Your task to perform on an android device: Open calendar and show me the third week of next month Image 0: 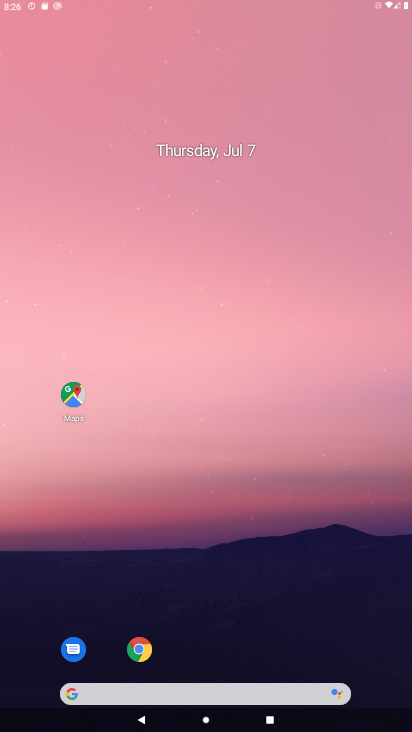
Step 0: press home button
Your task to perform on an android device: Open calendar and show me the third week of next month Image 1: 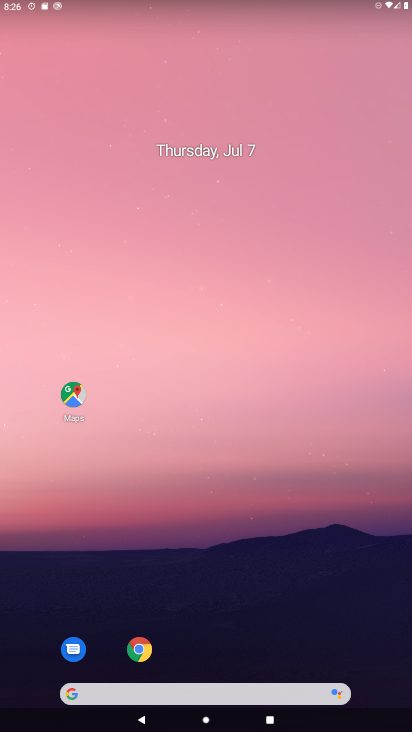
Step 1: drag from (213, 653) to (187, 90)
Your task to perform on an android device: Open calendar and show me the third week of next month Image 2: 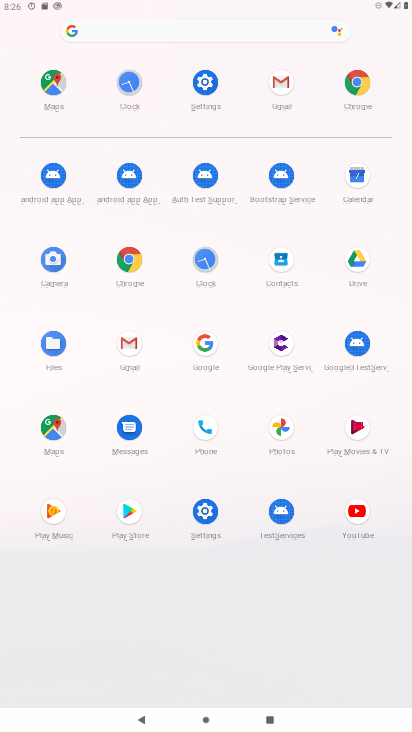
Step 2: click (353, 173)
Your task to perform on an android device: Open calendar and show me the third week of next month Image 3: 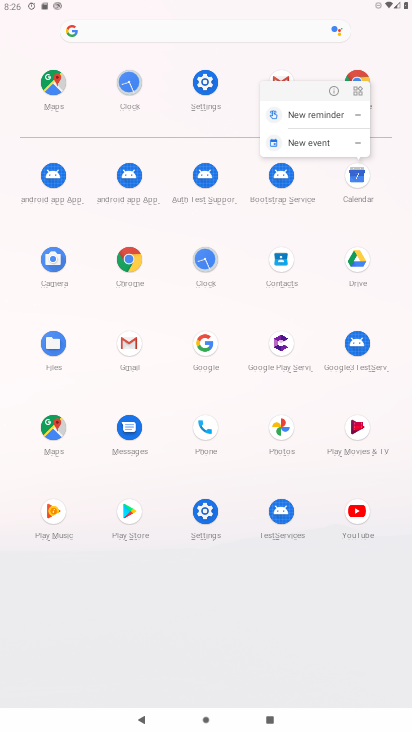
Step 3: click (357, 182)
Your task to perform on an android device: Open calendar and show me the third week of next month Image 4: 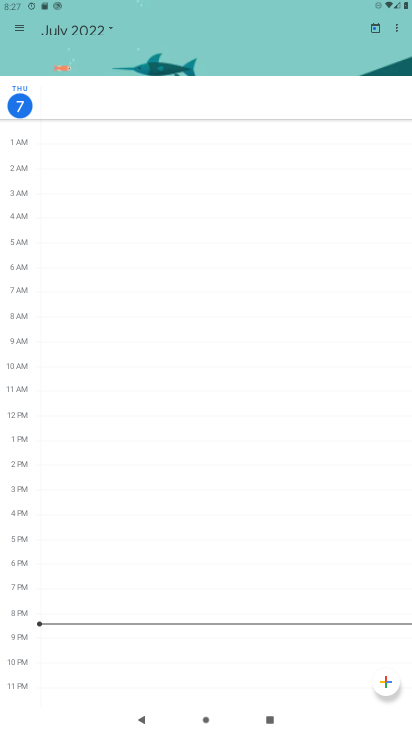
Step 4: click (108, 26)
Your task to perform on an android device: Open calendar and show me the third week of next month Image 5: 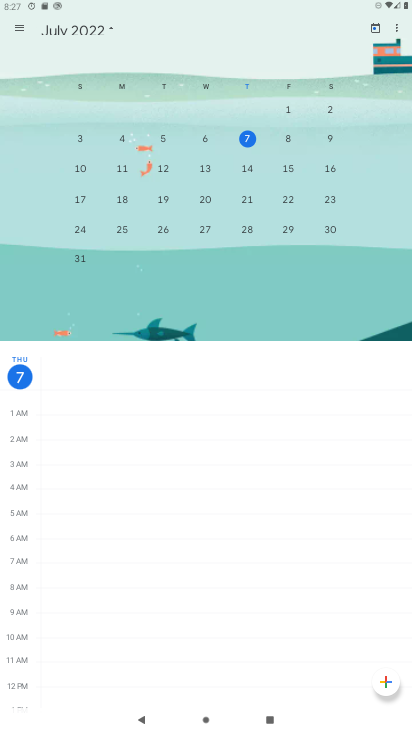
Step 5: drag from (310, 184) to (48, 196)
Your task to perform on an android device: Open calendar and show me the third week of next month Image 6: 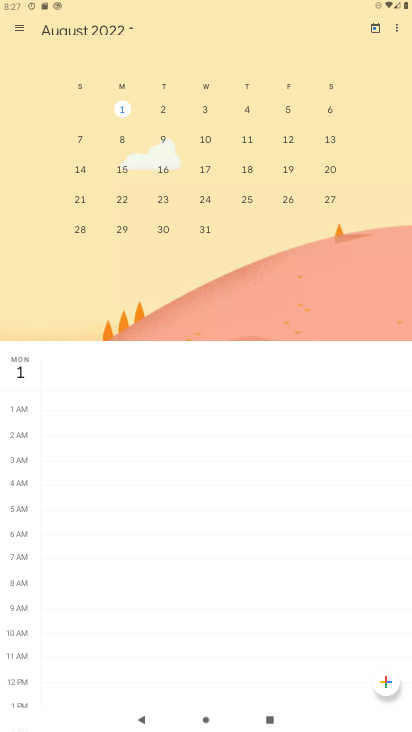
Step 6: click (85, 169)
Your task to perform on an android device: Open calendar and show me the third week of next month Image 7: 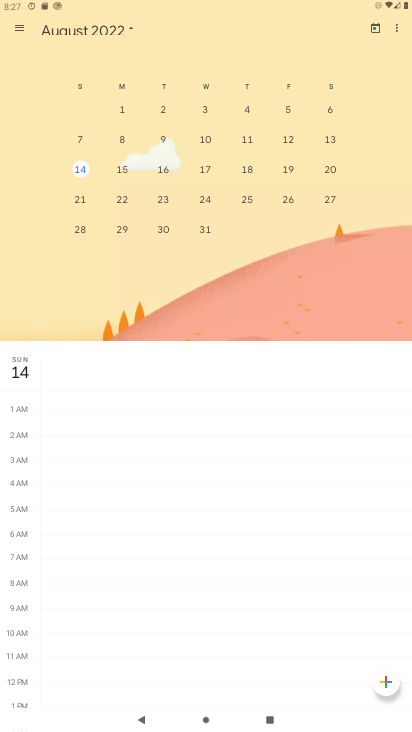
Step 7: click (132, 29)
Your task to perform on an android device: Open calendar and show me the third week of next month Image 8: 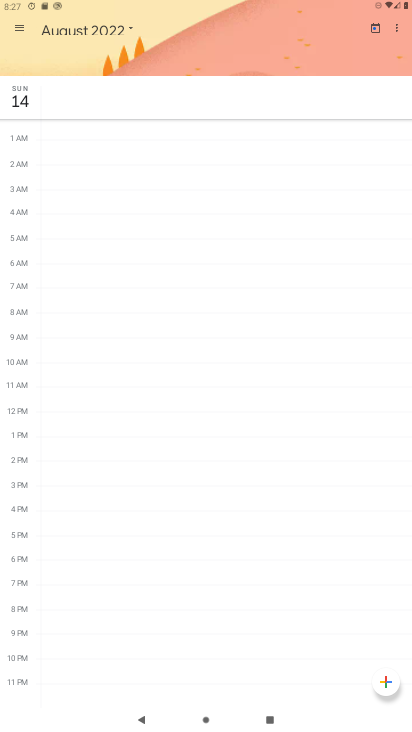
Step 8: click (30, 106)
Your task to perform on an android device: Open calendar and show me the third week of next month Image 9: 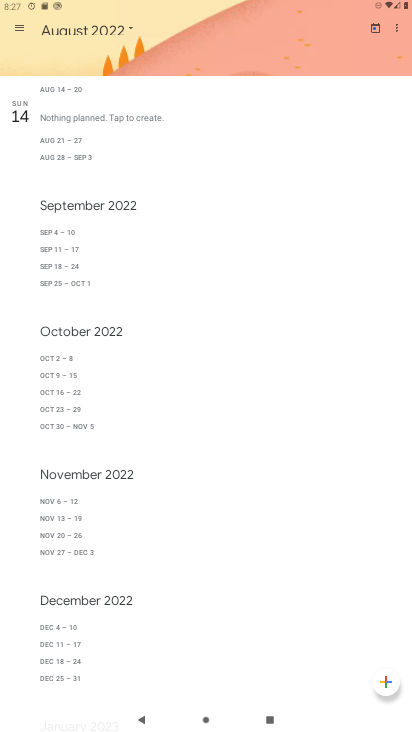
Step 9: task complete